Your task to perform on an android device: Show me the alarms in the clock app Image 0: 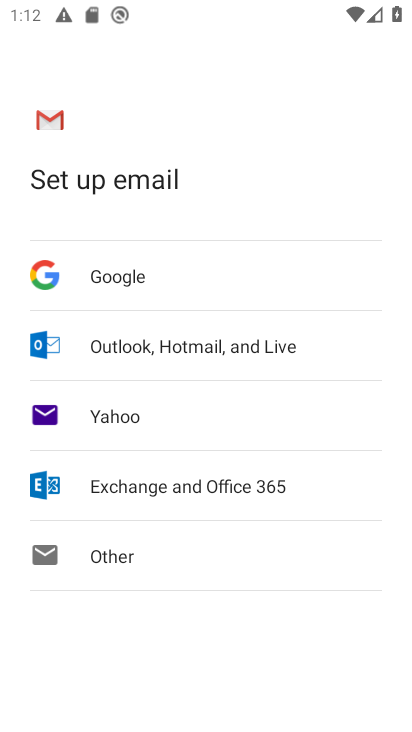
Step 0: press home button
Your task to perform on an android device: Show me the alarms in the clock app Image 1: 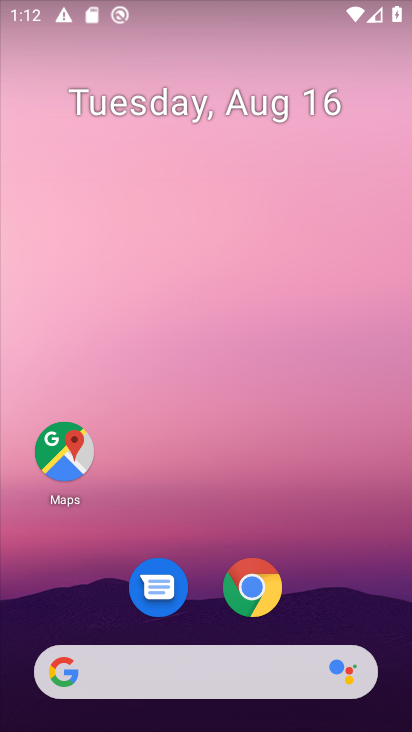
Step 1: drag from (176, 620) to (260, 358)
Your task to perform on an android device: Show me the alarms in the clock app Image 2: 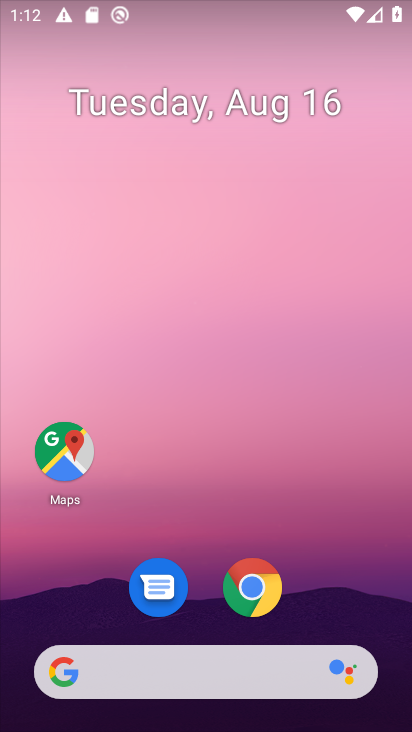
Step 2: drag from (179, 598) to (199, 441)
Your task to perform on an android device: Show me the alarms in the clock app Image 3: 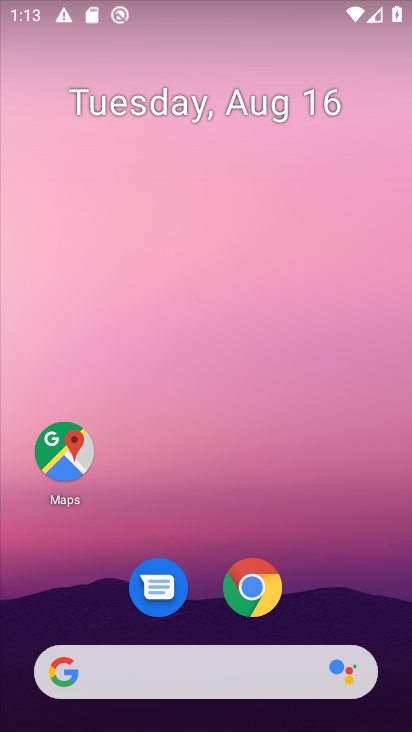
Step 3: drag from (246, 612) to (347, 297)
Your task to perform on an android device: Show me the alarms in the clock app Image 4: 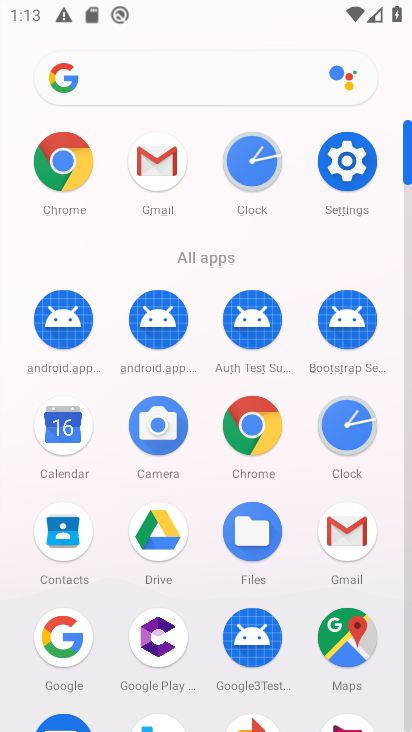
Step 4: click (268, 171)
Your task to perform on an android device: Show me the alarms in the clock app Image 5: 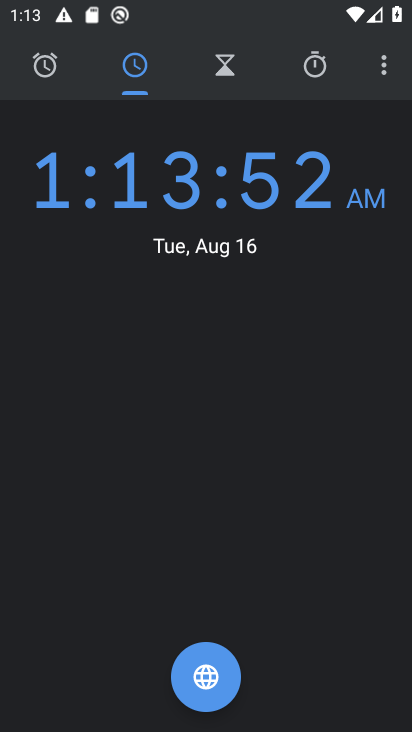
Step 5: click (60, 65)
Your task to perform on an android device: Show me the alarms in the clock app Image 6: 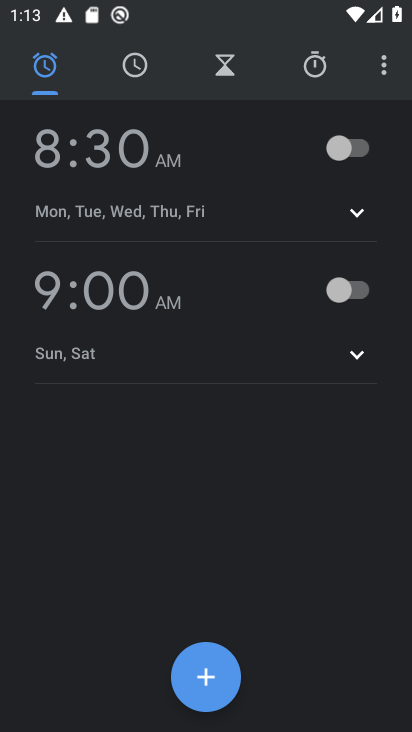
Step 6: task complete